Your task to perform on an android device: Open Chrome and go to the settings page Image 0: 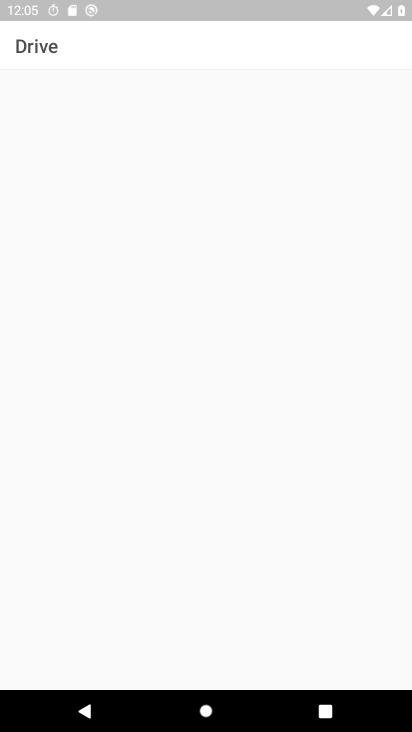
Step 0: press home button
Your task to perform on an android device: Open Chrome and go to the settings page Image 1: 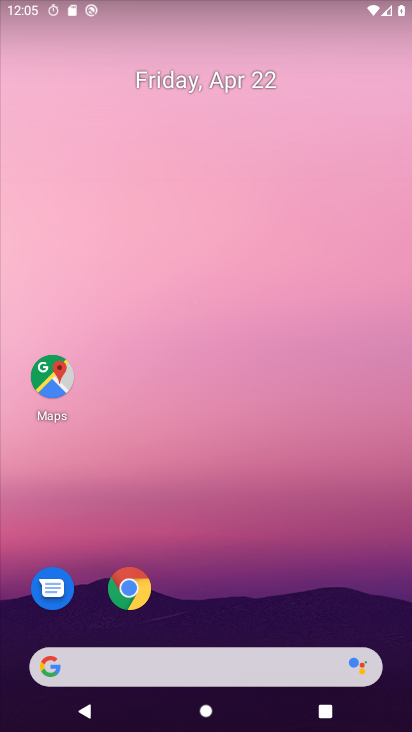
Step 1: click (124, 590)
Your task to perform on an android device: Open Chrome and go to the settings page Image 2: 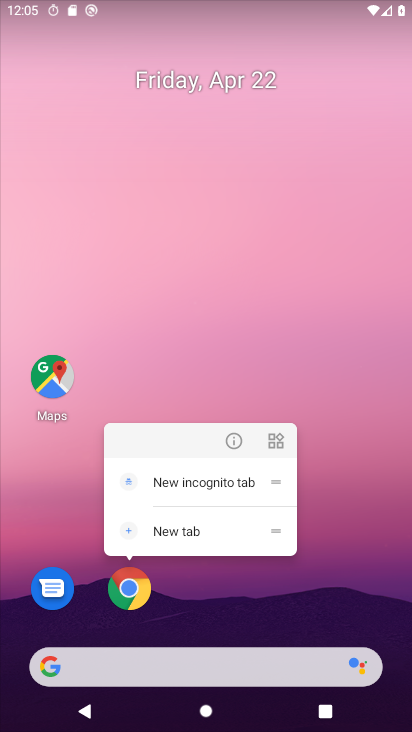
Step 2: click (124, 589)
Your task to perform on an android device: Open Chrome and go to the settings page Image 3: 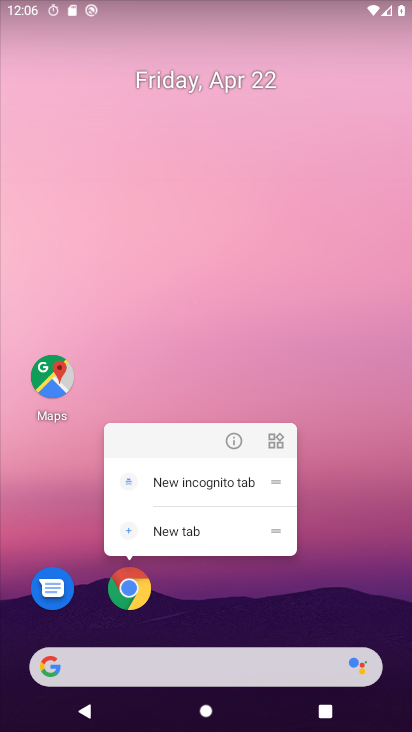
Step 3: click (124, 589)
Your task to perform on an android device: Open Chrome and go to the settings page Image 4: 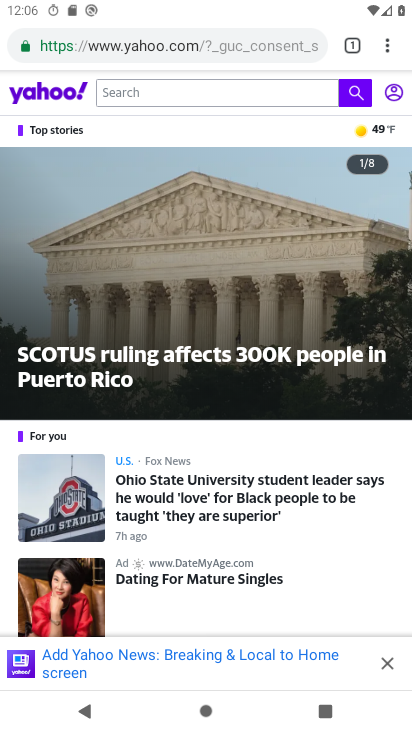
Step 4: click (386, 45)
Your task to perform on an android device: Open Chrome and go to the settings page Image 5: 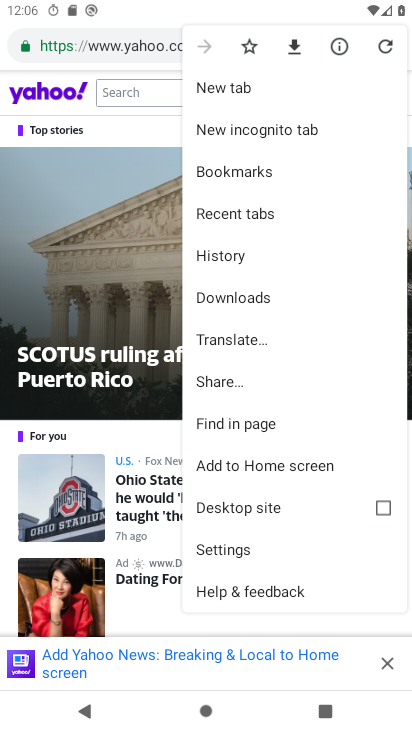
Step 5: click (284, 548)
Your task to perform on an android device: Open Chrome and go to the settings page Image 6: 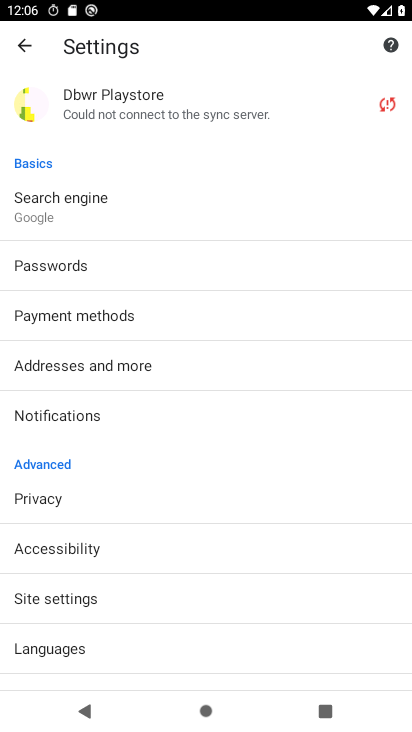
Step 6: task complete